Your task to perform on an android device: Open maps Image 0: 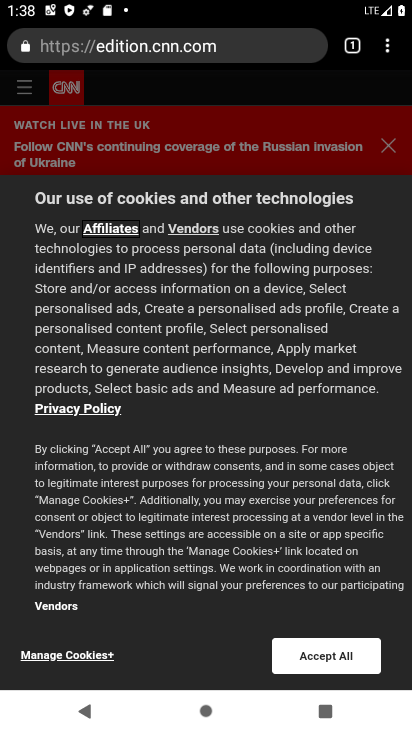
Step 0: press back button
Your task to perform on an android device: Open maps Image 1: 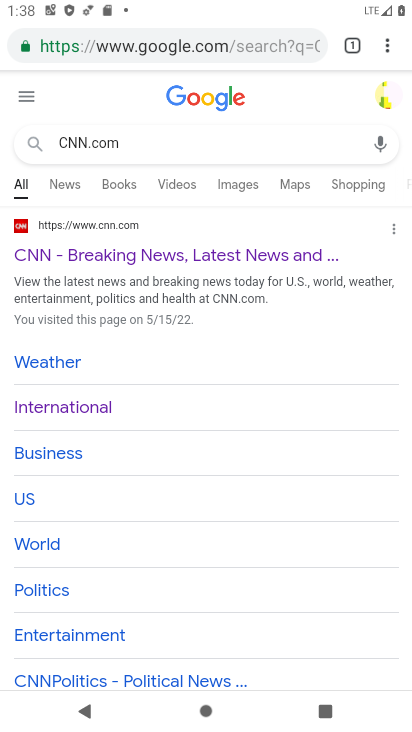
Step 1: press back button
Your task to perform on an android device: Open maps Image 2: 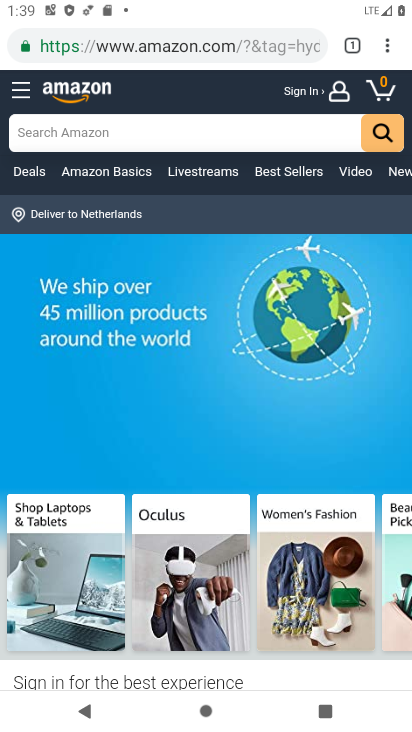
Step 2: press back button
Your task to perform on an android device: Open maps Image 3: 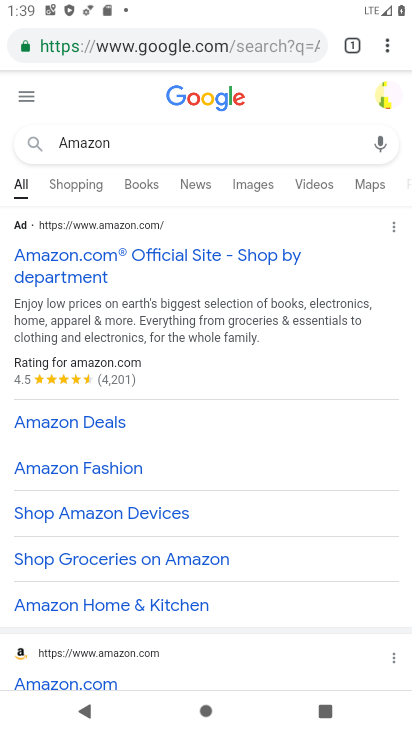
Step 3: press back button
Your task to perform on an android device: Open maps Image 4: 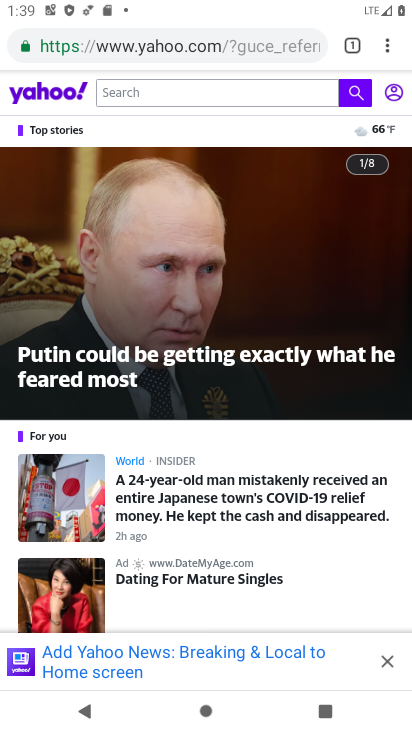
Step 4: press back button
Your task to perform on an android device: Open maps Image 5: 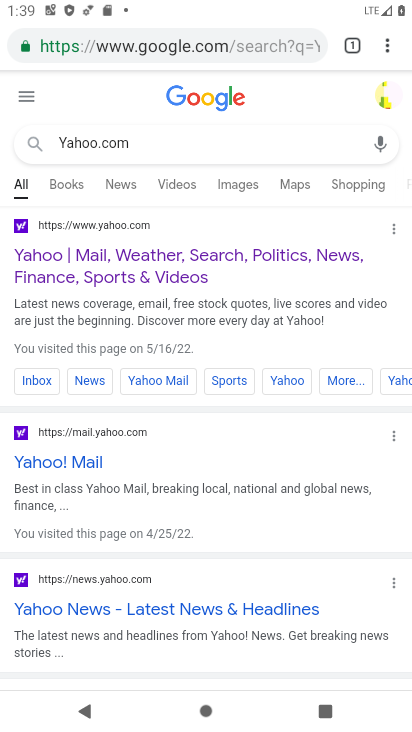
Step 5: press back button
Your task to perform on an android device: Open maps Image 6: 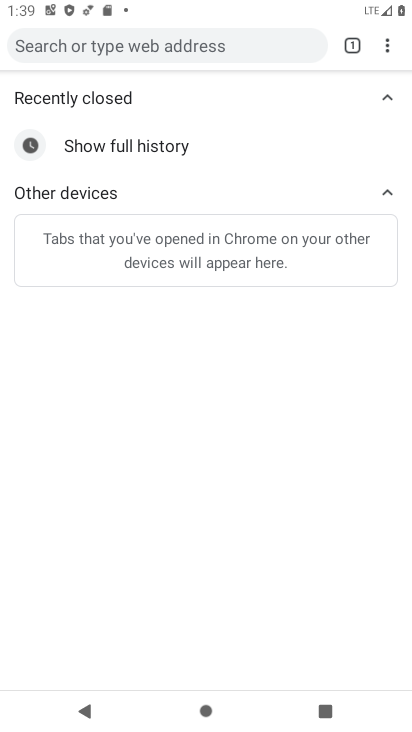
Step 6: press back button
Your task to perform on an android device: Open maps Image 7: 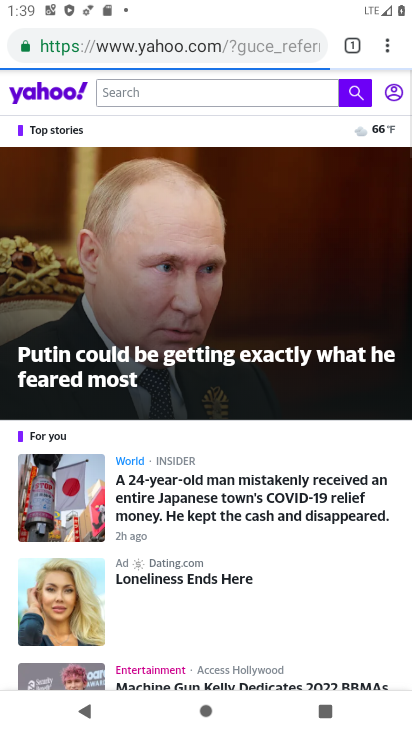
Step 7: press back button
Your task to perform on an android device: Open maps Image 8: 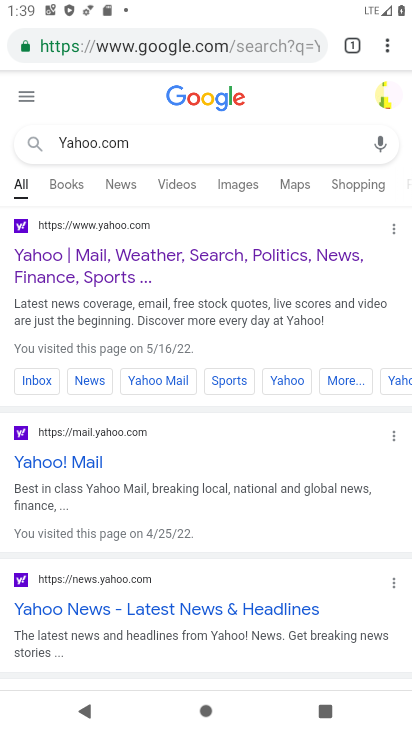
Step 8: press back button
Your task to perform on an android device: Open maps Image 9: 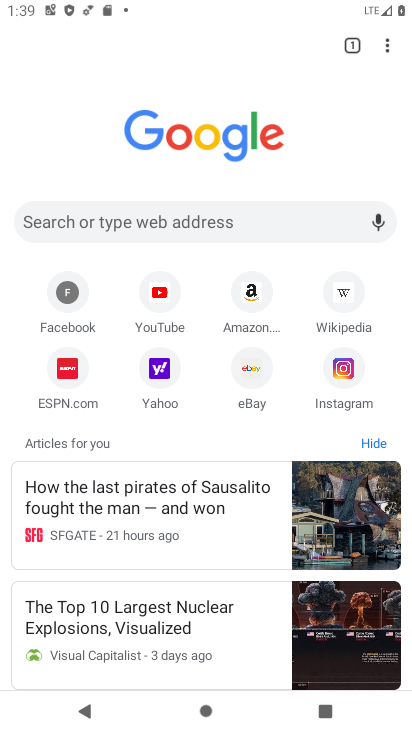
Step 9: press back button
Your task to perform on an android device: Open maps Image 10: 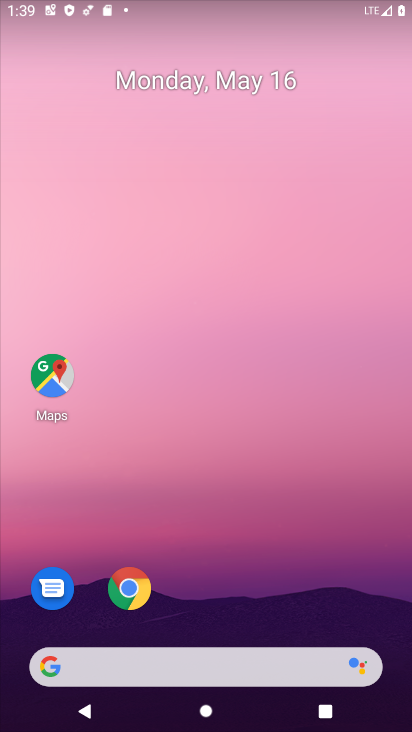
Step 10: click (52, 375)
Your task to perform on an android device: Open maps Image 11: 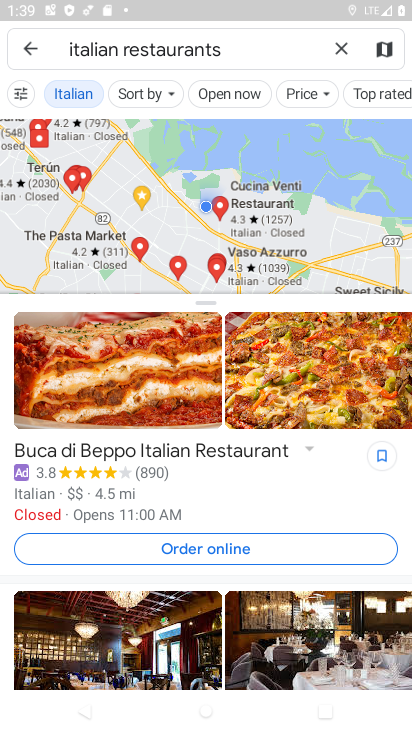
Step 11: click (334, 46)
Your task to perform on an android device: Open maps Image 12: 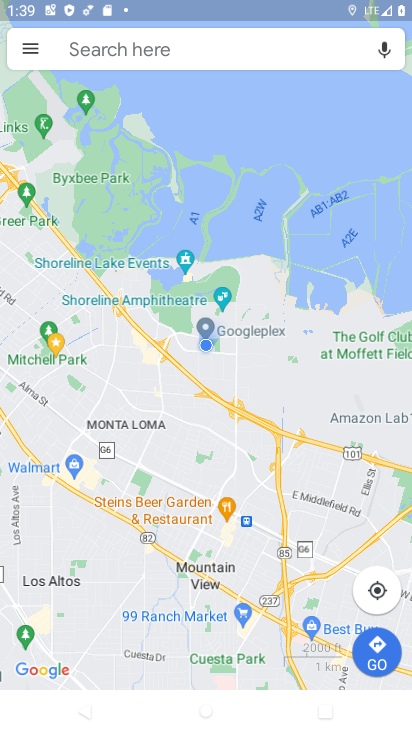
Step 12: task complete